Your task to perform on an android device: Go to Maps Image 0: 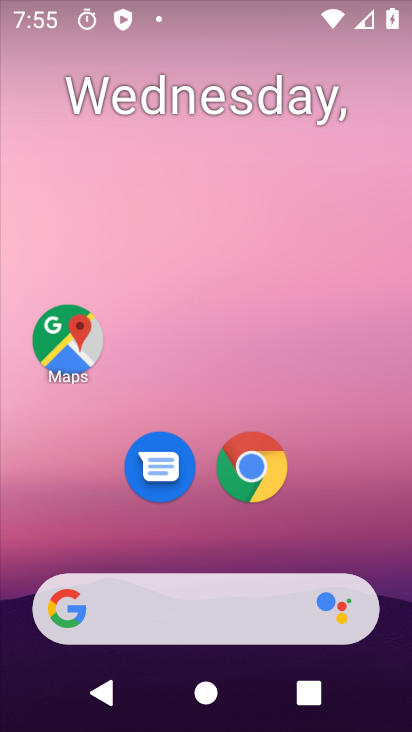
Step 0: click (60, 339)
Your task to perform on an android device: Go to Maps Image 1: 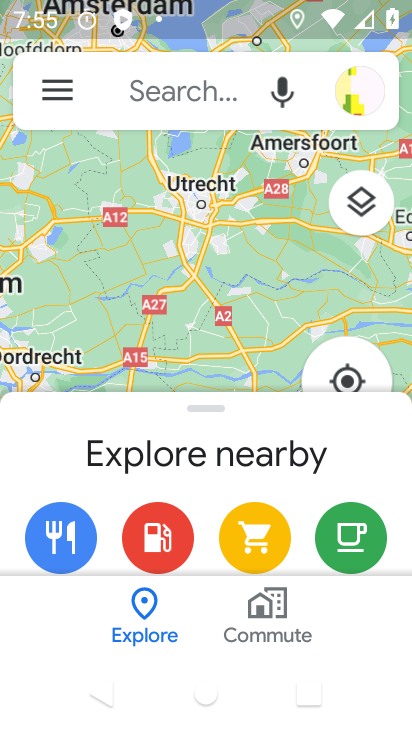
Step 1: task complete